Your task to perform on an android device: Show me productivity apps on the Play Store Image 0: 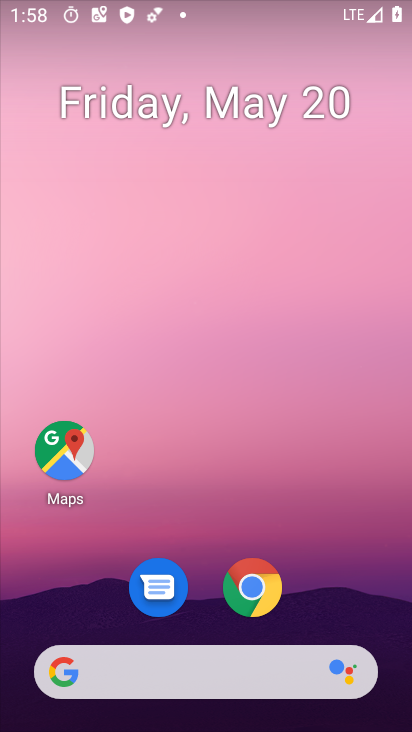
Step 0: drag from (342, 580) to (316, 109)
Your task to perform on an android device: Show me productivity apps on the Play Store Image 1: 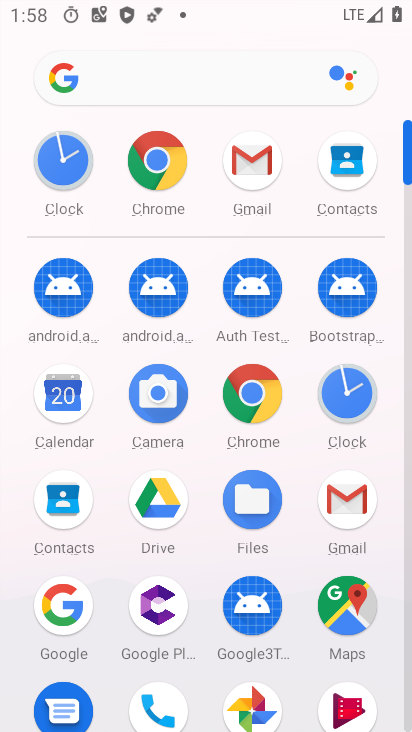
Step 1: drag from (283, 664) to (290, 308)
Your task to perform on an android device: Show me productivity apps on the Play Store Image 2: 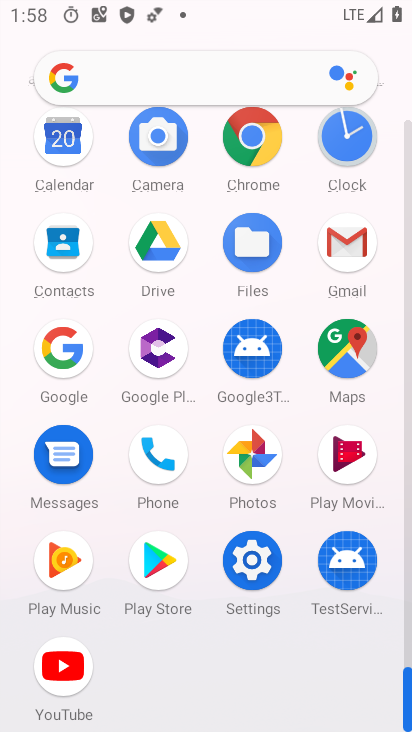
Step 2: click (160, 568)
Your task to perform on an android device: Show me productivity apps on the Play Store Image 3: 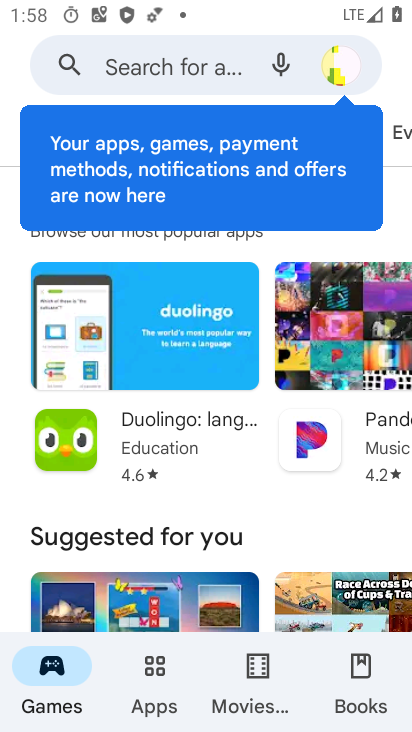
Step 3: click (354, 68)
Your task to perform on an android device: Show me productivity apps on the Play Store Image 4: 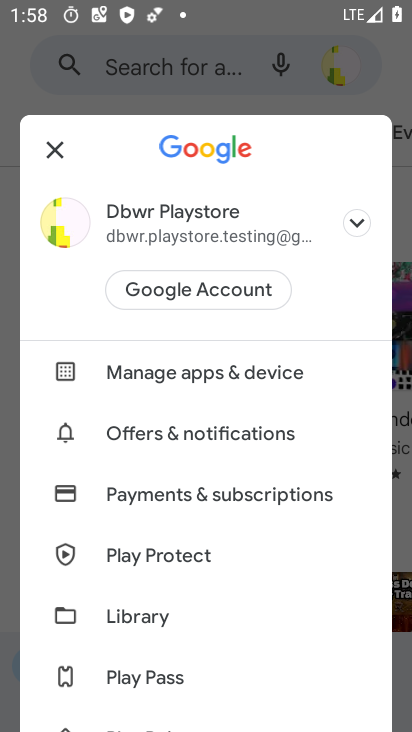
Step 4: click (181, 51)
Your task to perform on an android device: Show me productivity apps on the Play Store Image 5: 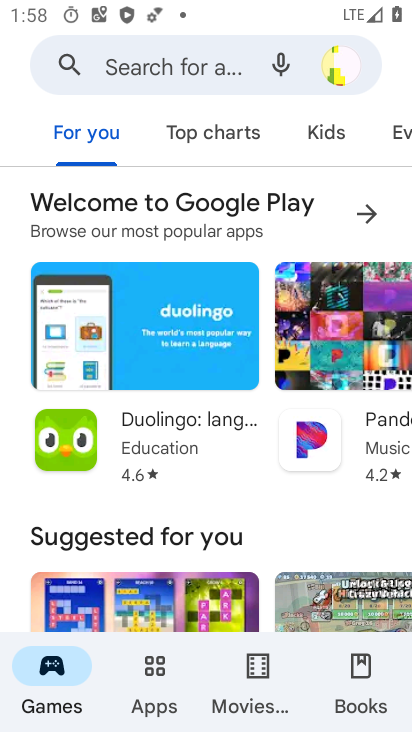
Step 5: click (158, 668)
Your task to perform on an android device: Show me productivity apps on the Play Store Image 6: 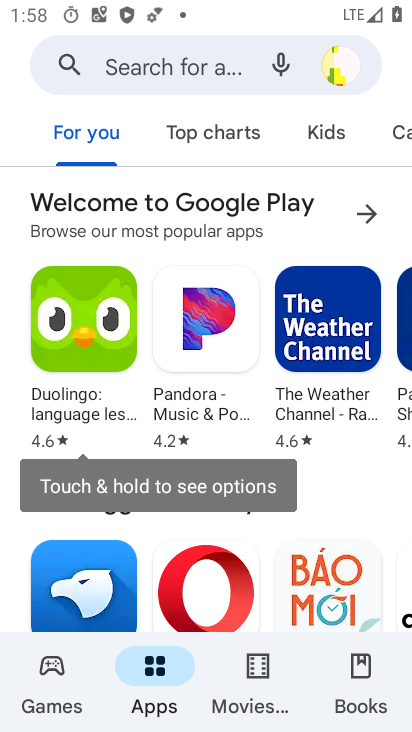
Step 6: task complete